Your task to perform on an android device: check the backup settings in the google photos Image 0: 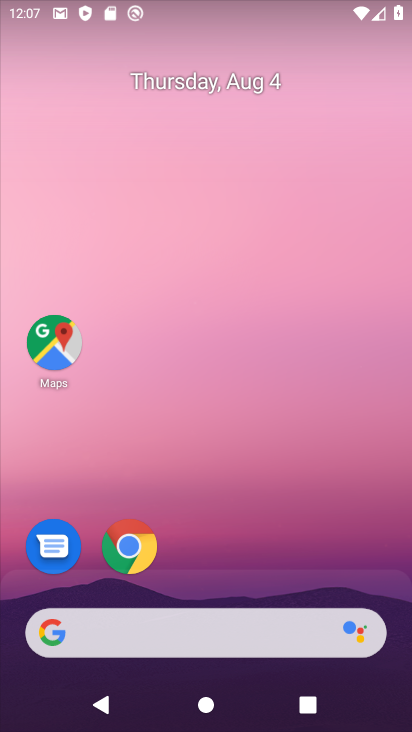
Step 0: drag from (238, 539) to (202, 0)
Your task to perform on an android device: check the backup settings in the google photos Image 1: 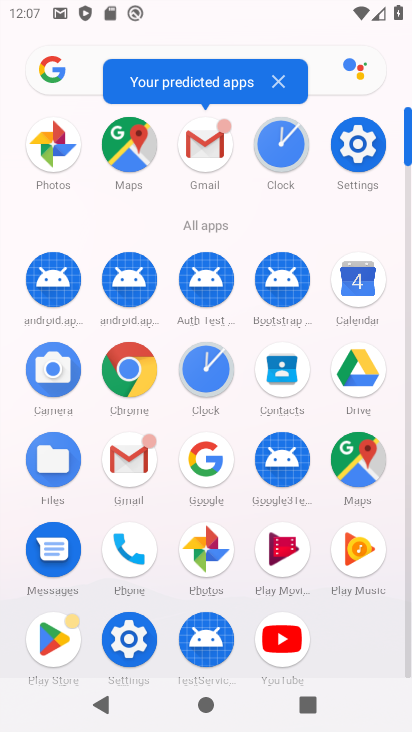
Step 1: click (50, 142)
Your task to perform on an android device: check the backup settings in the google photos Image 2: 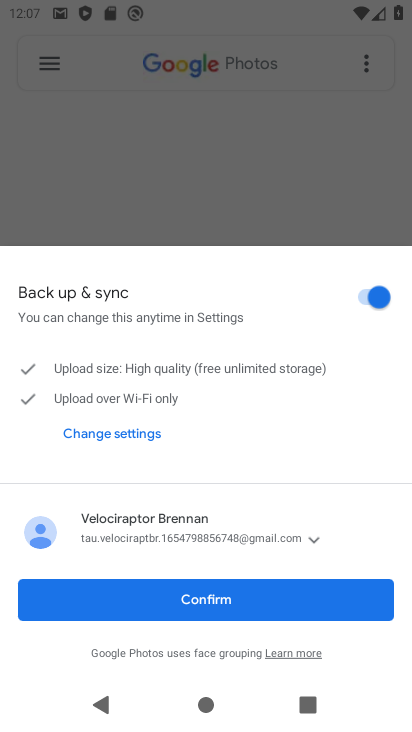
Step 2: click (201, 604)
Your task to perform on an android device: check the backup settings in the google photos Image 3: 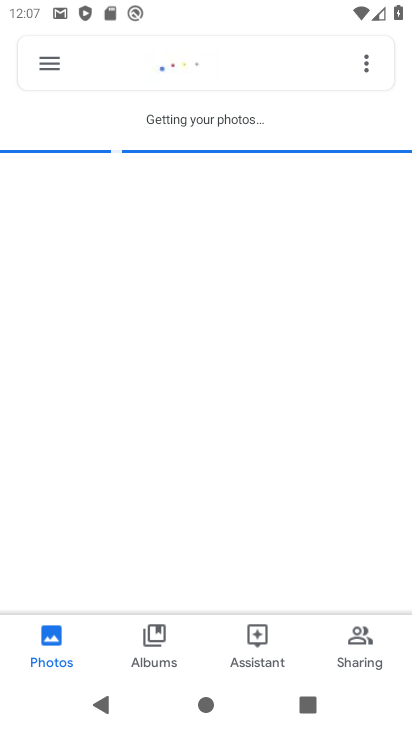
Step 3: click (51, 65)
Your task to perform on an android device: check the backup settings in the google photos Image 4: 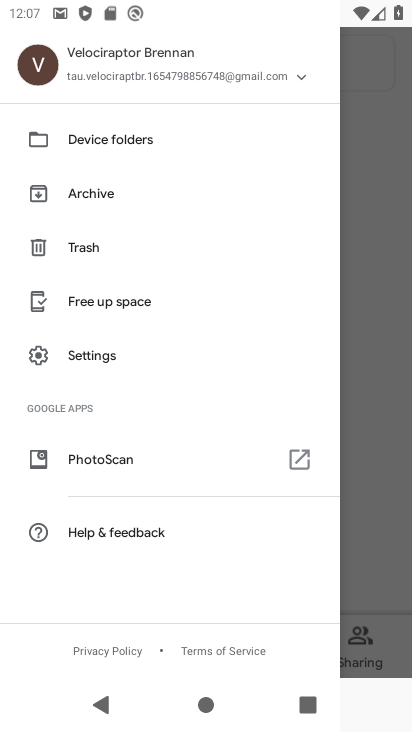
Step 4: click (94, 349)
Your task to perform on an android device: check the backup settings in the google photos Image 5: 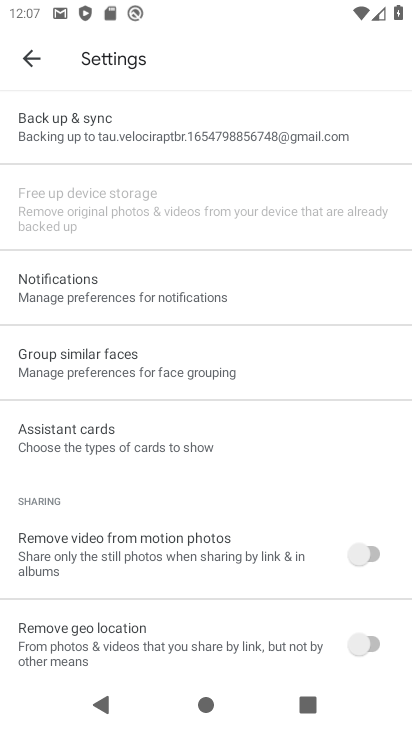
Step 5: click (48, 125)
Your task to perform on an android device: check the backup settings in the google photos Image 6: 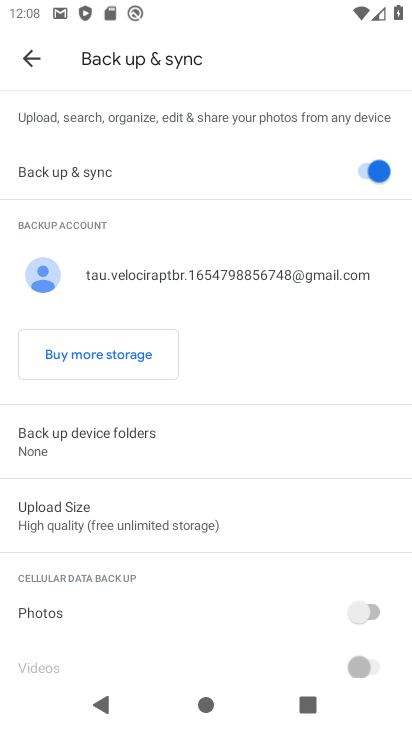
Step 6: task complete